Your task to perform on an android device: open chrome privacy settings Image 0: 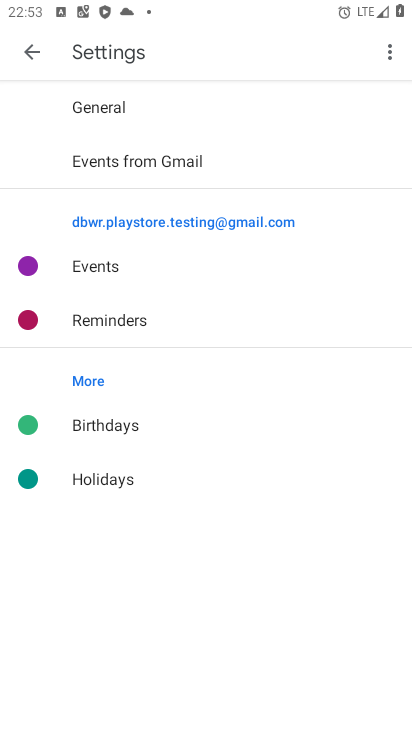
Step 0: press home button
Your task to perform on an android device: open chrome privacy settings Image 1: 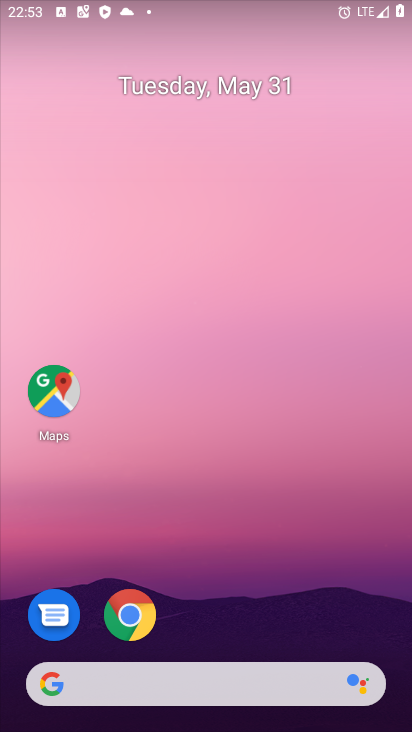
Step 1: click (125, 612)
Your task to perform on an android device: open chrome privacy settings Image 2: 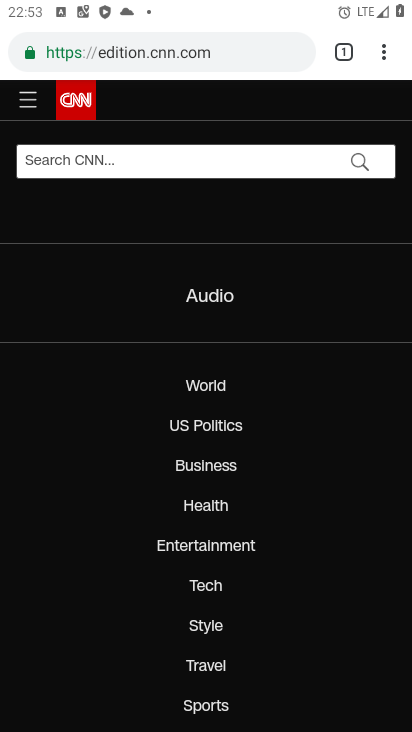
Step 2: click (387, 59)
Your task to perform on an android device: open chrome privacy settings Image 3: 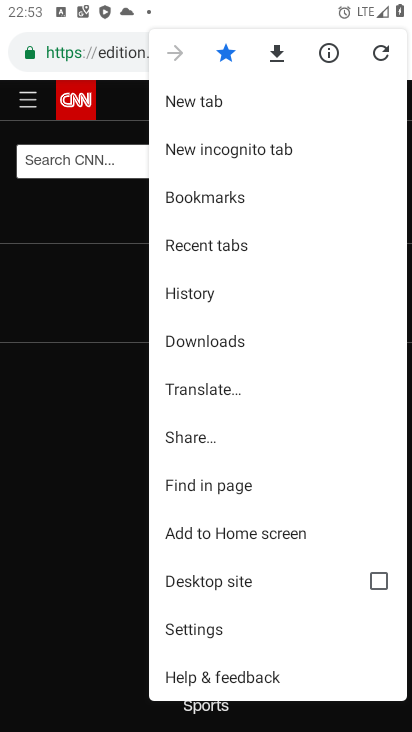
Step 3: click (219, 617)
Your task to perform on an android device: open chrome privacy settings Image 4: 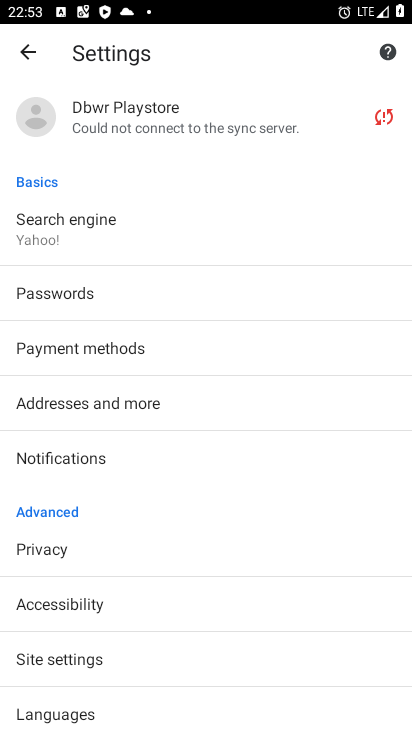
Step 4: click (64, 552)
Your task to perform on an android device: open chrome privacy settings Image 5: 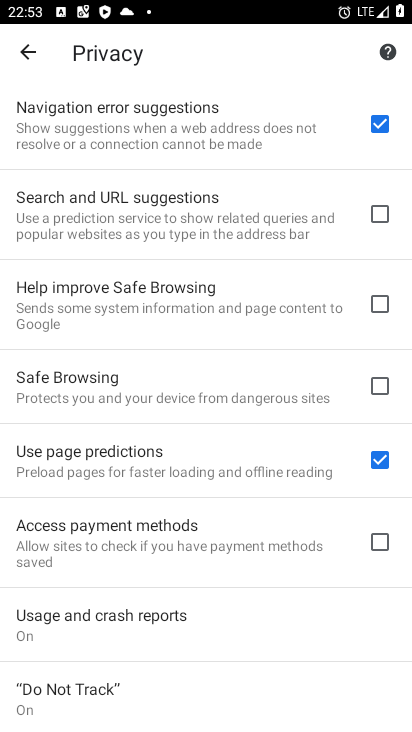
Step 5: task complete